Your task to perform on an android device: Open the stopwatch Image 0: 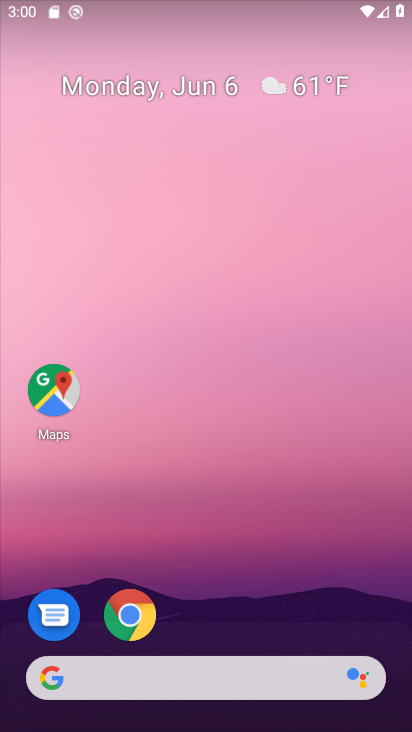
Step 0: drag from (207, 644) to (193, 93)
Your task to perform on an android device: Open the stopwatch Image 1: 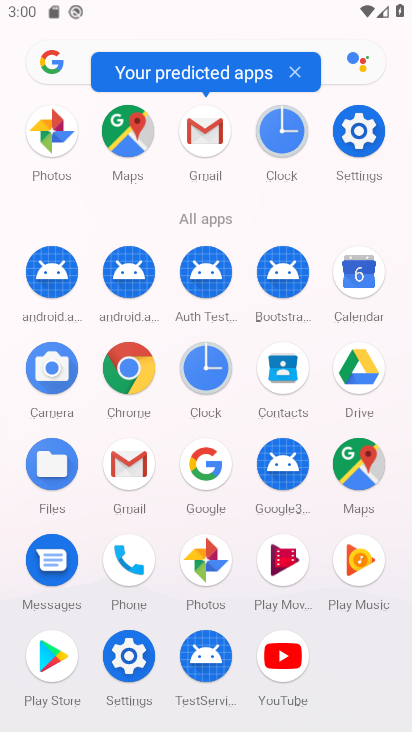
Step 1: click (213, 358)
Your task to perform on an android device: Open the stopwatch Image 2: 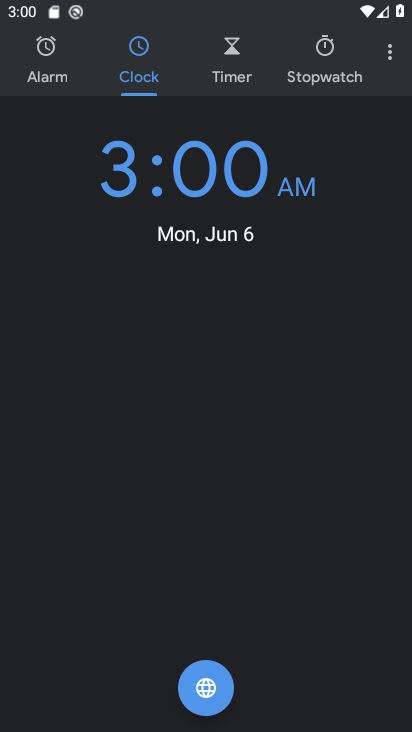
Step 2: click (327, 66)
Your task to perform on an android device: Open the stopwatch Image 3: 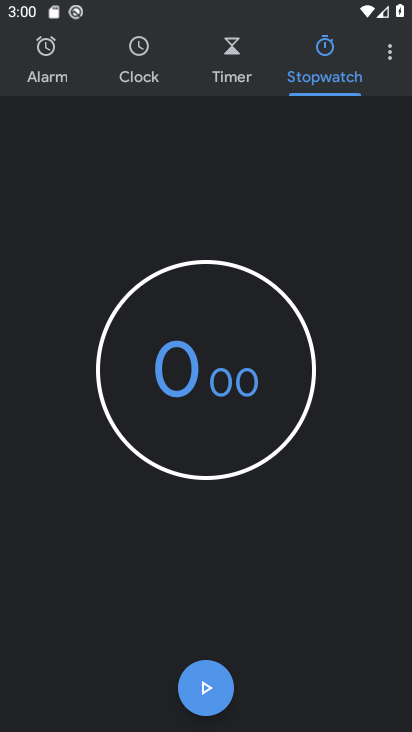
Step 3: task complete